Your task to perform on an android device: open chrome privacy settings Image 0: 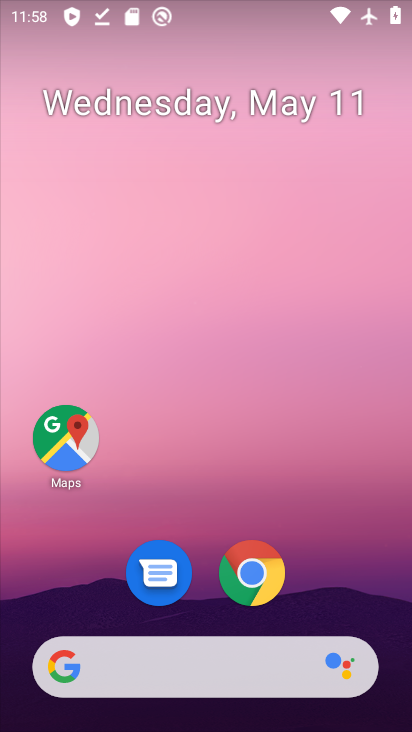
Step 0: click (277, 583)
Your task to perform on an android device: open chrome privacy settings Image 1: 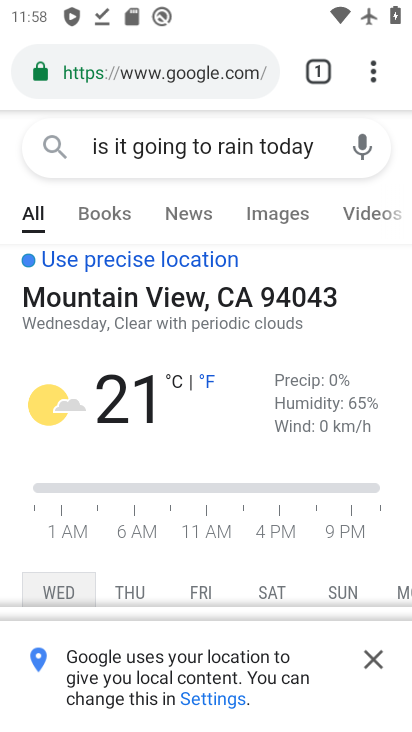
Step 1: drag from (377, 69) to (226, 569)
Your task to perform on an android device: open chrome privacy settings Image 2: 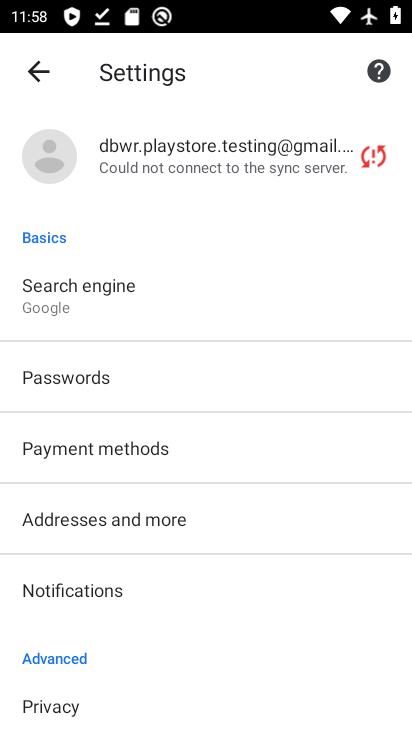
Step 2: drag from (191, 664) to (184, 478)
Your task to perform on an android device: open chrome privacy settings Image 3: 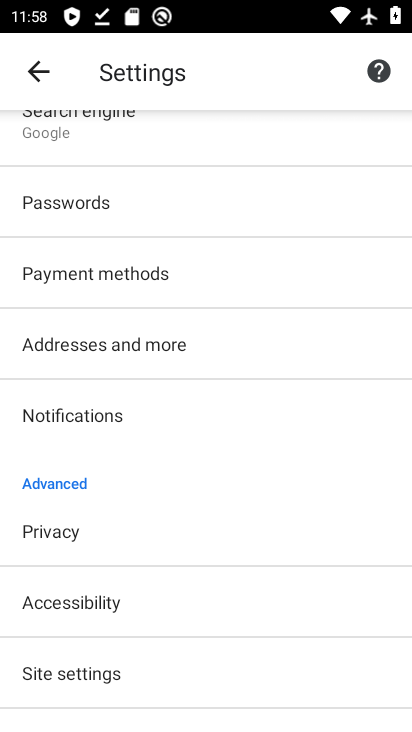
Step 3: click (66, 535)
Your task to perform on an android device: open chrome privacy settings Image 4: 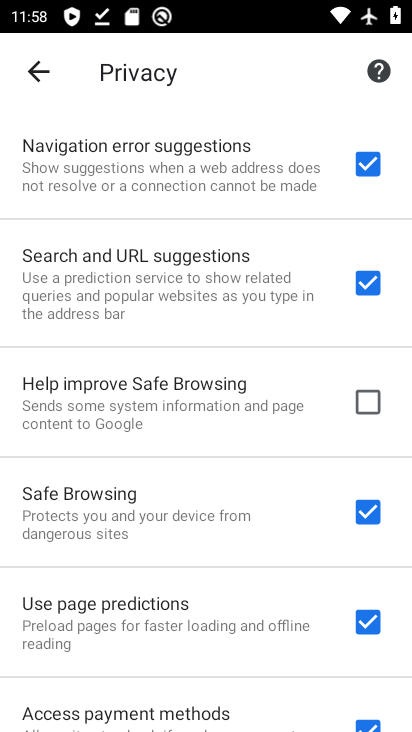
Step 4: task complete